Your task to perform on an android device: turn off improve location accuracy Image 0: 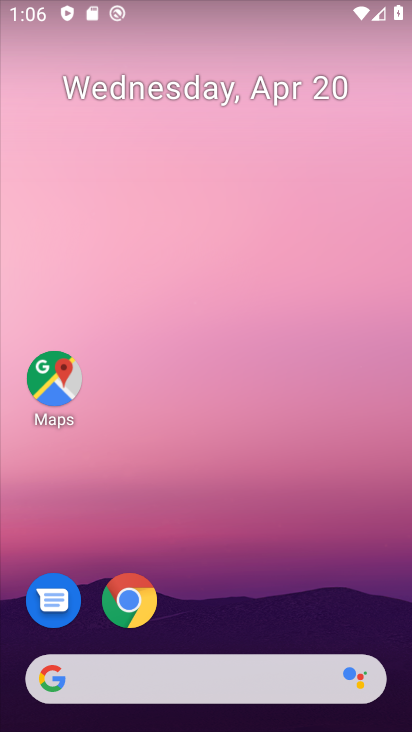
Step 0: drag from (367, 620) to (329, 233)
Your task to perform on an android device: turn off improve location accuracy Image 1: 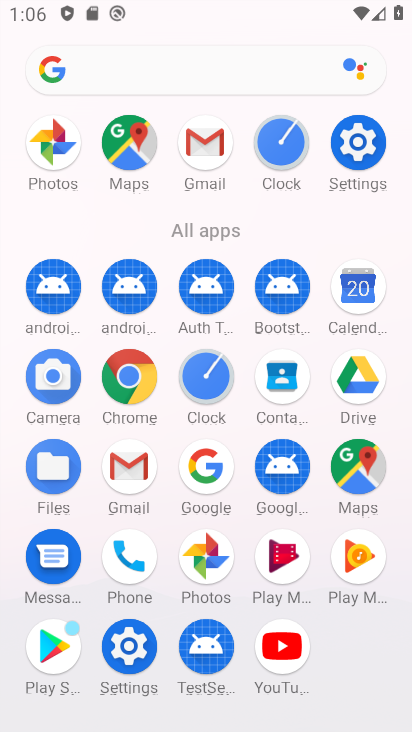
Step 1: click (129, 644)
Your task to perform on an android device: turn off improve location accuracy Image 2: 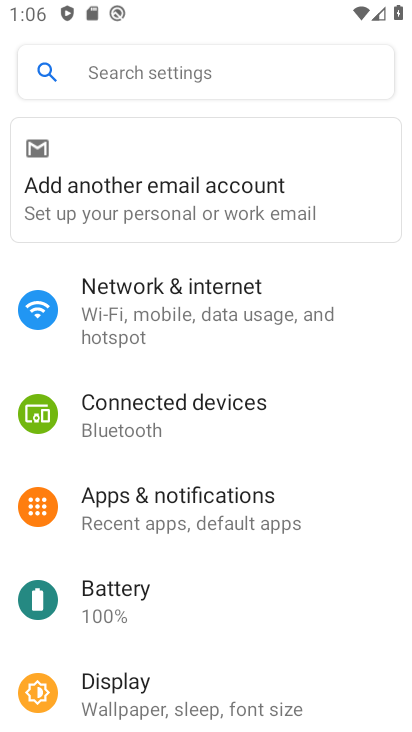
Step 2: drag from (296, 610) to (302, 272)
Your task to perform on an android device: turn off improve location accuracy Image 3: 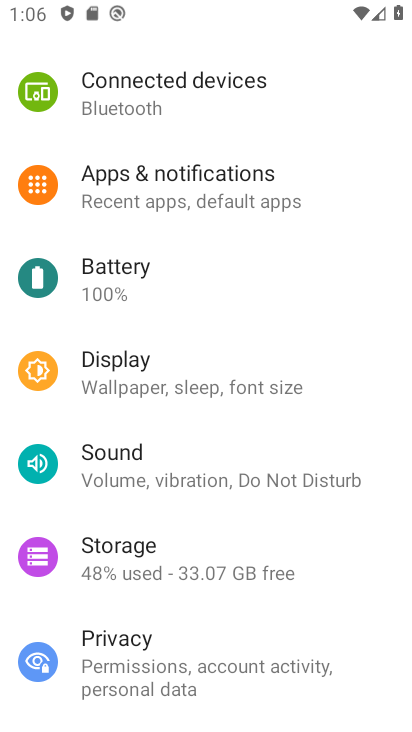
Step 3: drag from (328, 601) to (365, 194)
Your task to perform on an android device: turn off improve location accuracy Image 4: 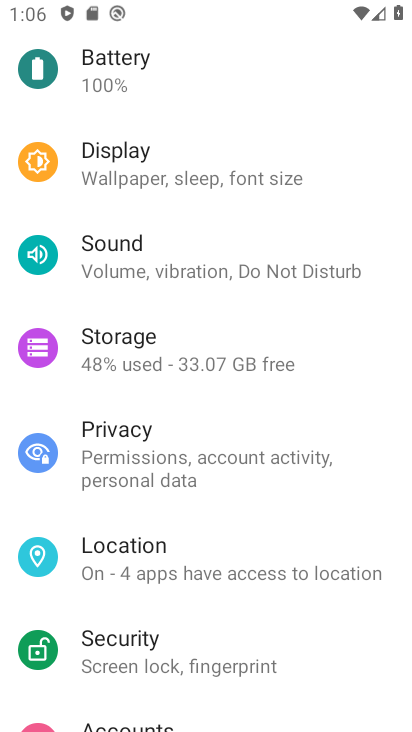
Step 4: click (118, 554)
Your task to perform on an android device: turn off improve location accuracy Image 5: 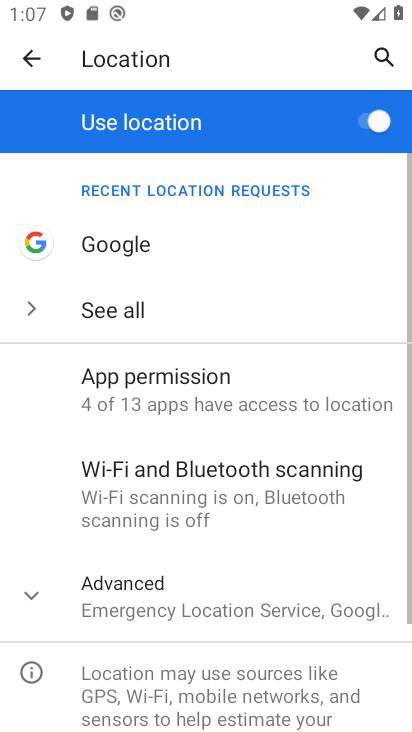
Step 5: click (33, 601)
Your task to perform on an android device: turn off improve location accuracy Image 6: 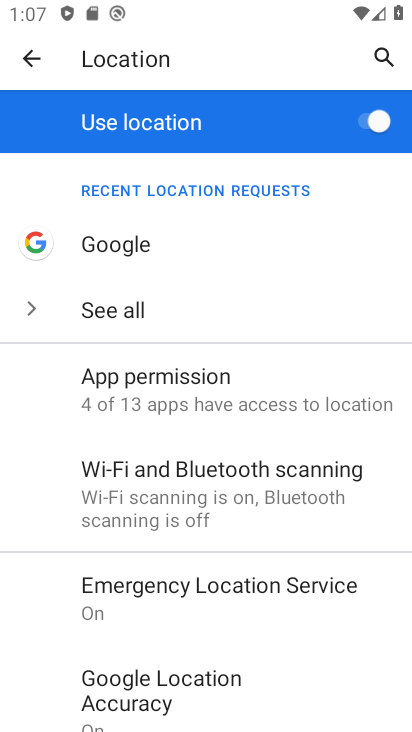
Step 6: drag from (329, 661) to (317, 389)
Your task to perform on an android device: turn off improve location accuracy Image 7: 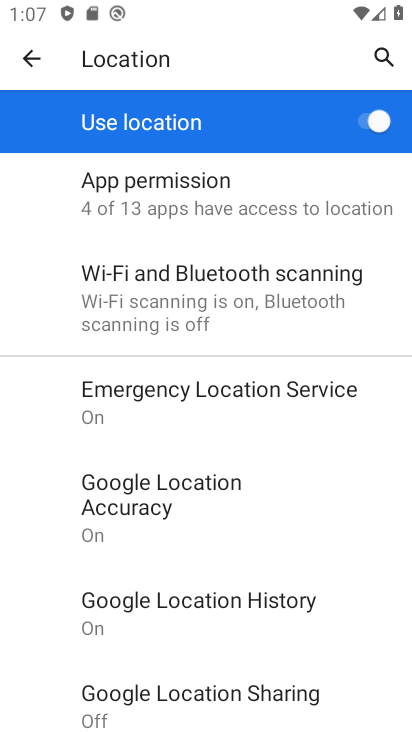
Step 7: click (123, 495)
Your task to perform on an android device: turn off improve location accuracy Image 8: 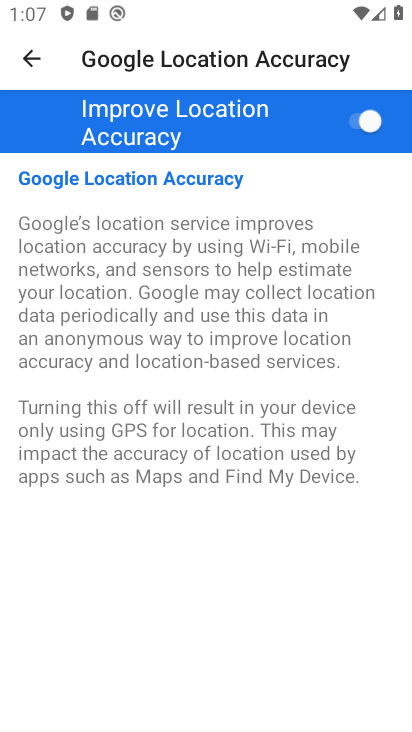
Step 8: click (352, 120)
Your task to perform on an android device: turn off improve location accuracy Image 9: 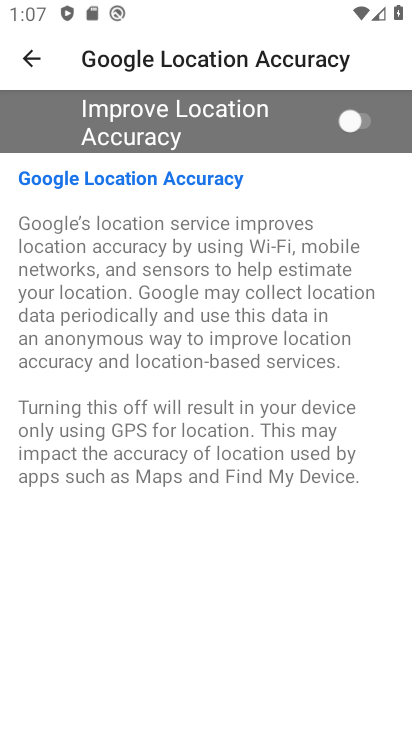
Step 9: task complete